Your task to perform on an android device: clear all cookies in the chrome app Image 0: 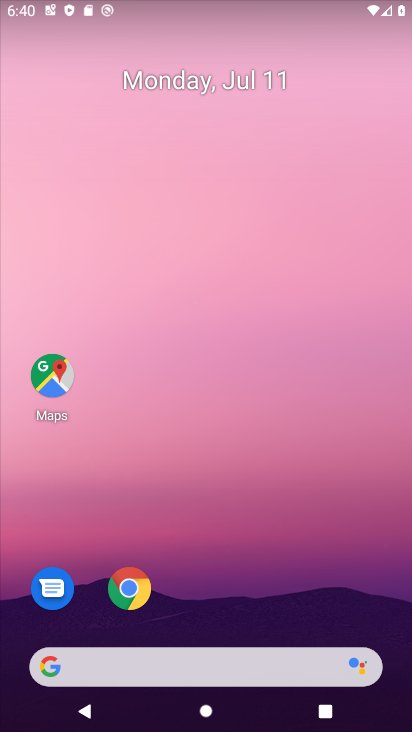
Step 0: drag from (294, 598) to (149, 92)
Your task to perform on an android device: clear all cookies in the chrome app Image 1: 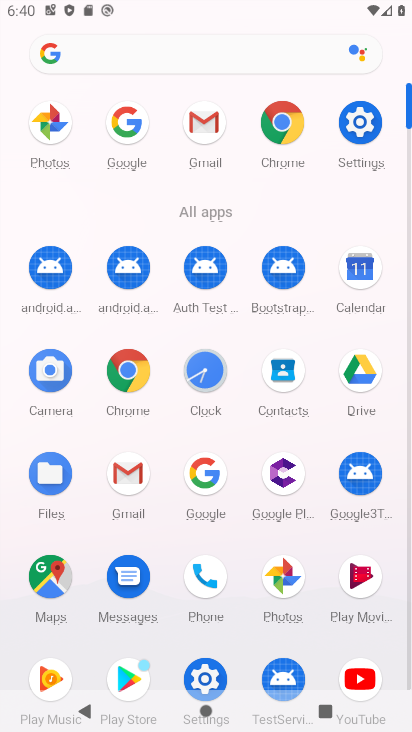
Step 1: click (133, 381)
Your task to perform on an android device: clear all cookies in the chrome app Image 2: 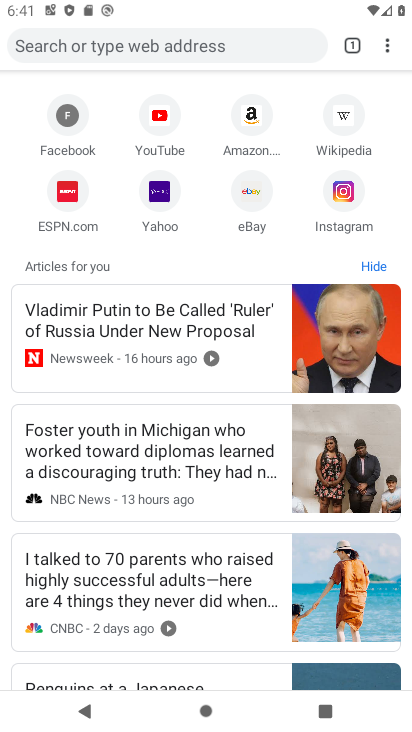
Step 2: click (383, 41)
Your task to perform on an android device: clear all cookies in the chrome app Image 3: 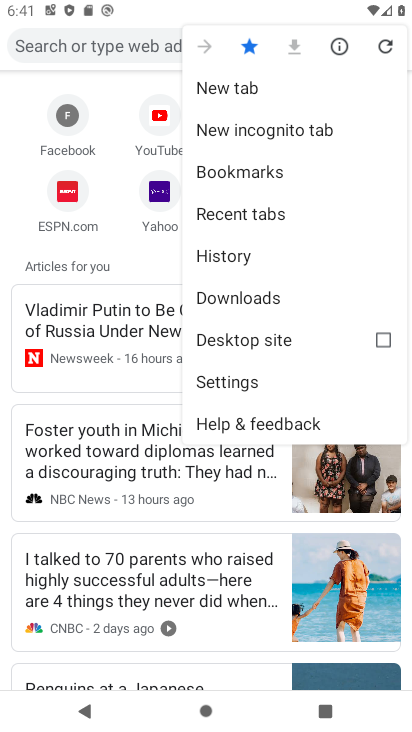
Step 3: click (248, 251)
Your task to perform on an android device: clear all cookies in the chrome app Image 4: 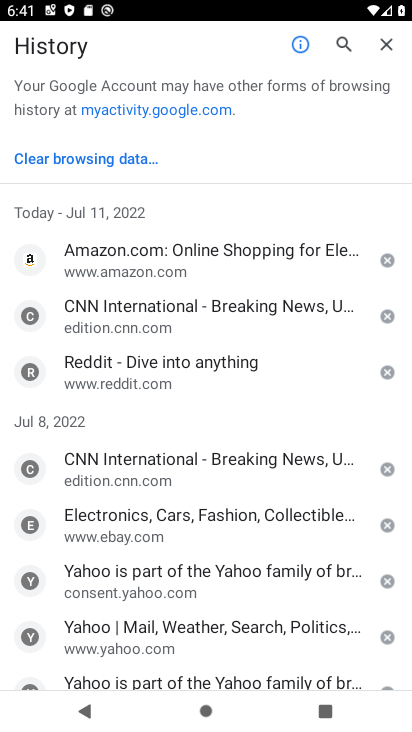
Step 4: click (98, 161)
Your task to perform on an android device: clear all cookies in the chrome app Image 5: 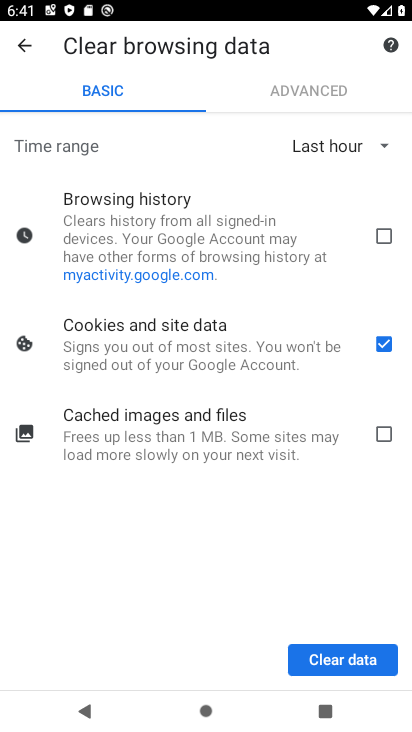
Step 5: click (336, 660)
Your task to perform on an android device: clear all cookies in the chrome app Image 6: 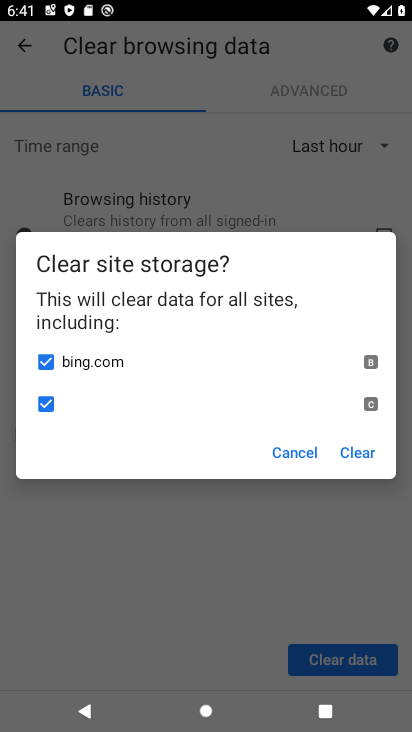
Step 6: click (359, 447)
Your task to perform on an android device: clear all cookies in the chrome app Image 7: 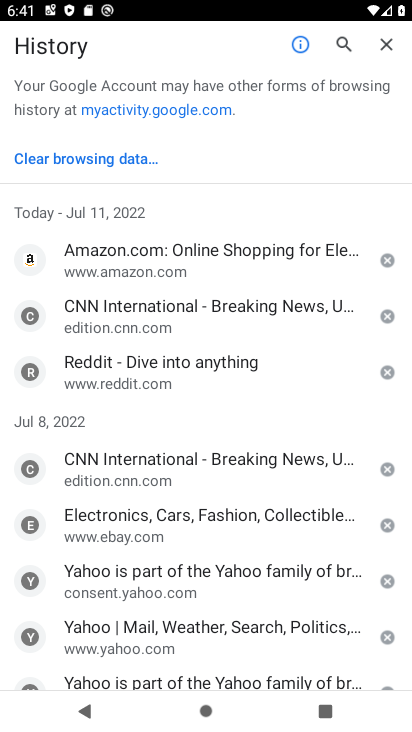
Step 7: task complete